Your task to perform on an android device: Open Maps and search for coffee Image 0: 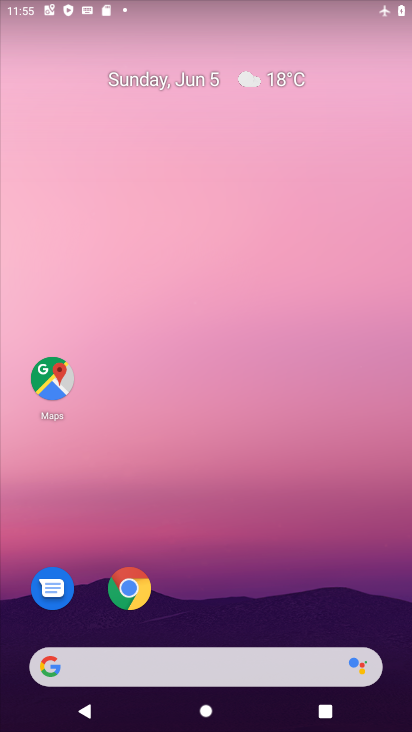
Step 0: click (63, 383)
Your task to perform on an android device: Open Maps and search for coffee Image 1: 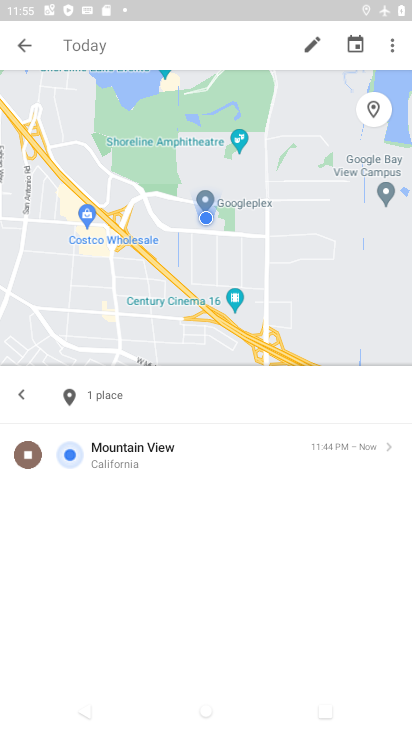
Step 1: click (20, 50)
Your task to perform on an android device: Open Maps and search for coffee Image 2: 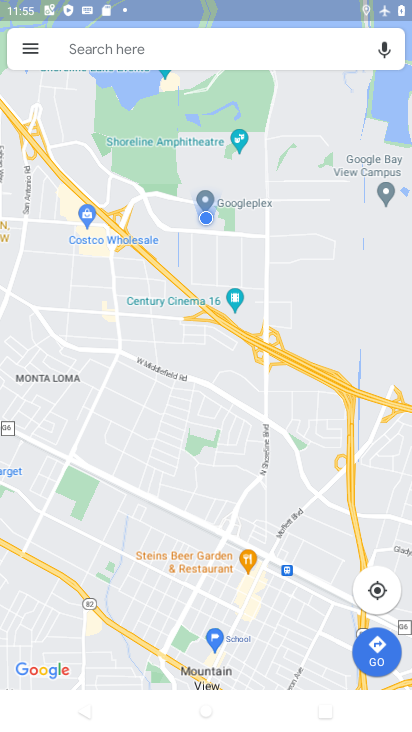
Step 2: click (97, 57)
Your task to perform on an android device: Open Maps and search for coffee Image 3: 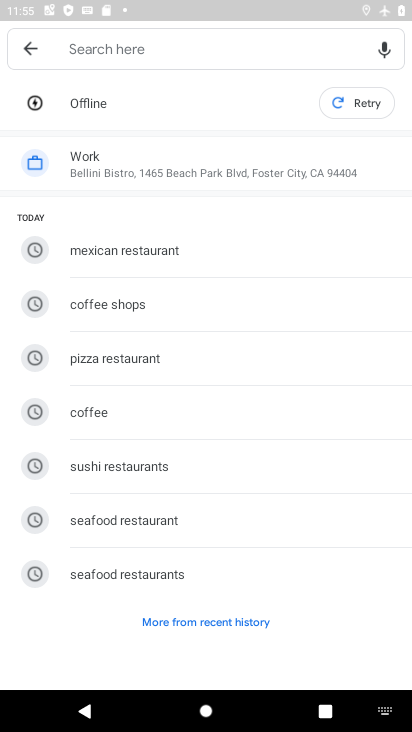
Step 3: click (212, 411)
Your task to perform on an android device: Open Maps and search for coffee Image 4: 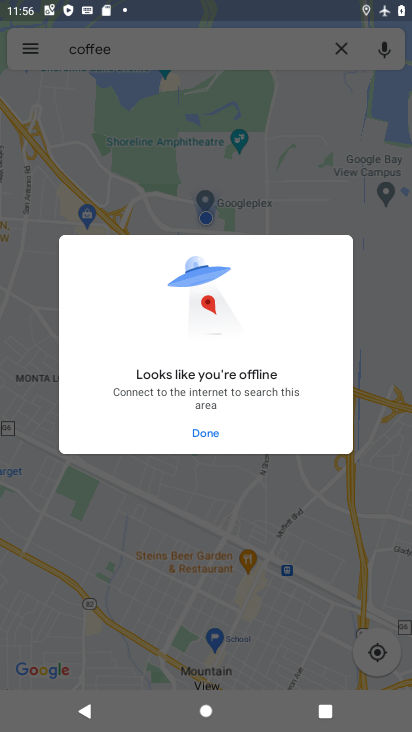
Step 4: task complete